Your task to perform on an android device: toggle data saver in the chrome app Image 0: 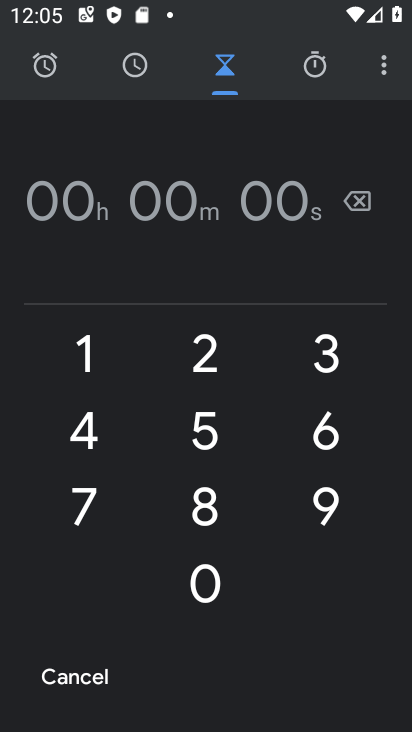
Step 0: press home button
Your task to perform on an android device: toggle data saver in the chrome app Image 1: 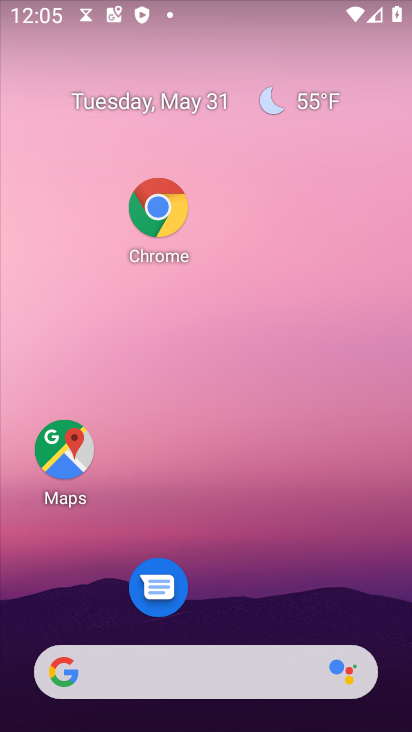
Step 1: click (176, 200)
Your task to perform on an android device: toggle data saver in the chrome app Image 2: 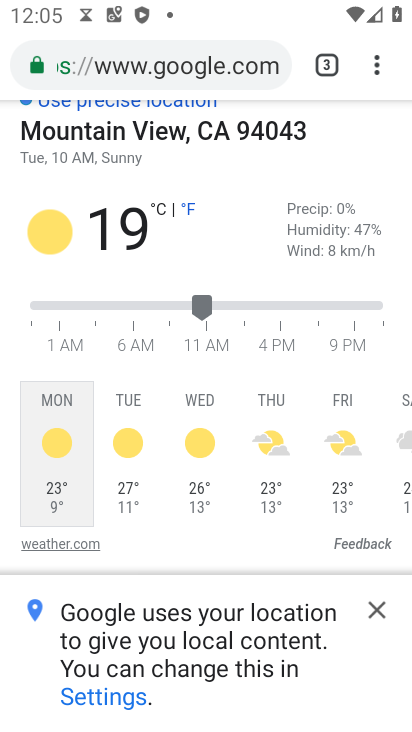
Step 2: click (384, 68)
Your task to perform on an android device: toggle data saver in the chrome app Image 3: 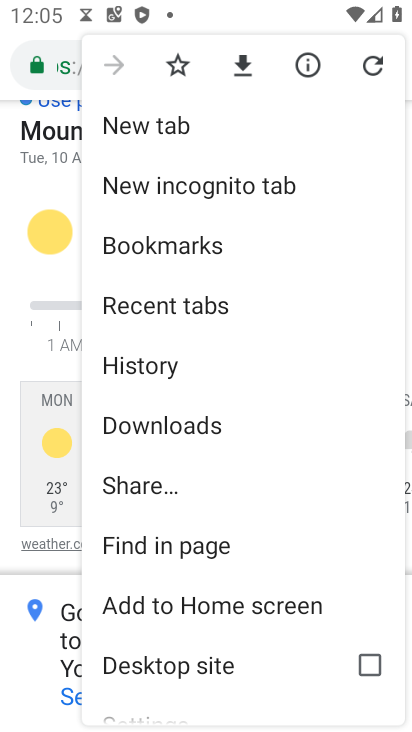
Step 3: drag from (261, 651) to (290, 469)
Your task to perform on an android device: toggle data saver in the chrome app Image 4: 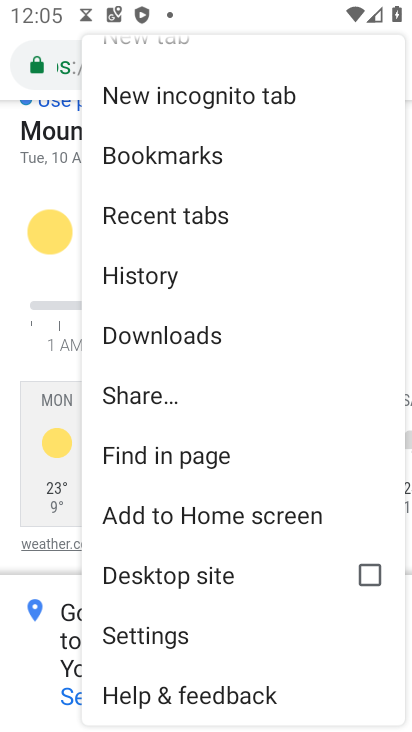
Step 4: click (145, 633)
Your task to perform on an android device: toggle data saver in the chrome app Image 5: 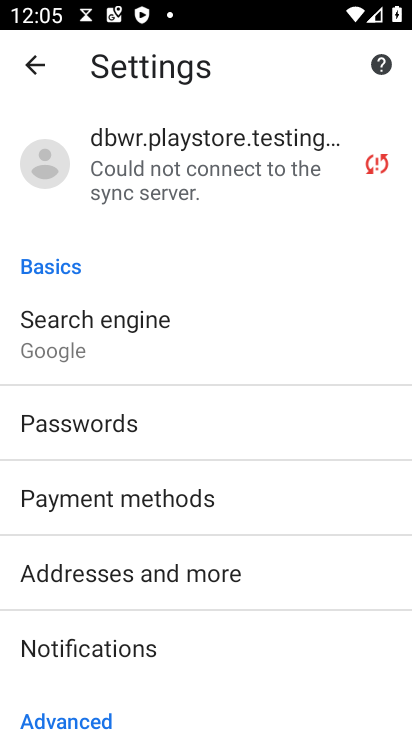
Step 5: drag from (162, 680) to (175, 235)
Your task to perform on an android device: toggle data saver in the chrome app Image 6: 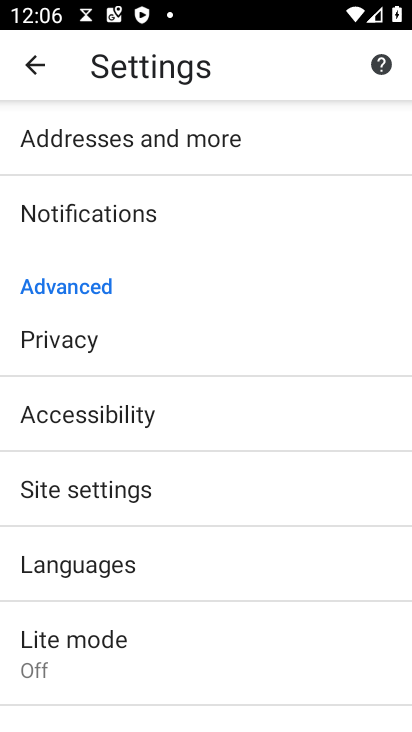
Step 6: click (76, 630)
Your task to perform on an android device: toggle data saver in the chrome app Image 7: 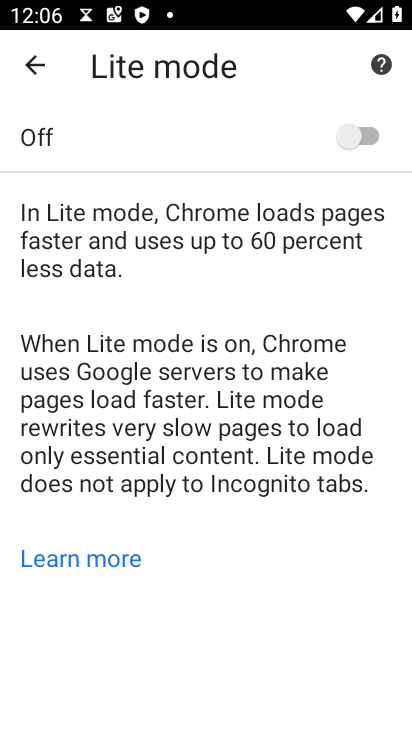
Step 7: click (349, 147)
Your task to perform on an android device: toggle data saver in the chrome app Image 8: 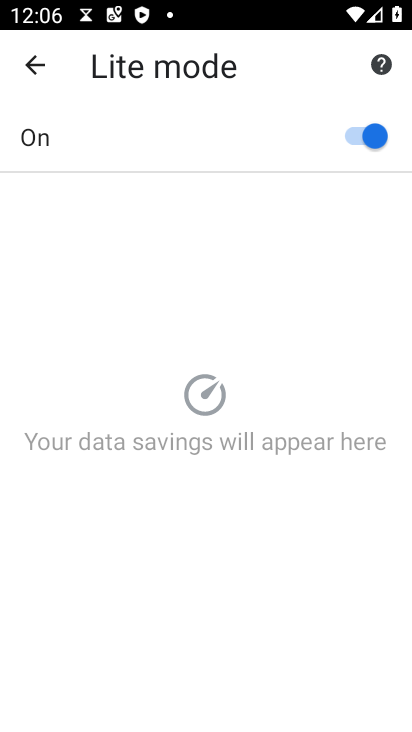
Step 8: task complete